Your task to perform on an android device: turn on the 24-hour format for clock Image 0: 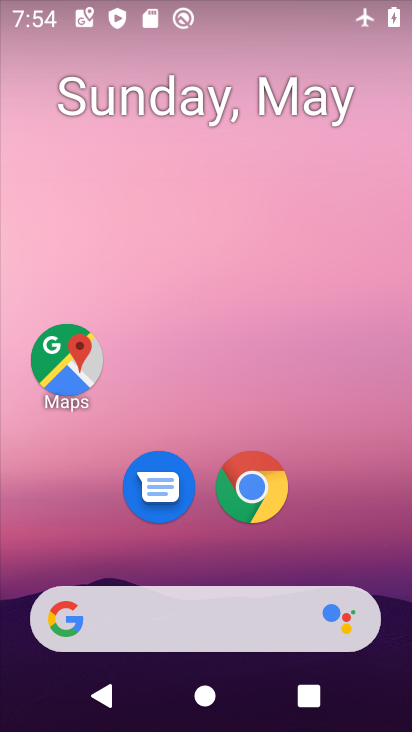
Step 0: drag from (384, 568) to (371, 262)
Your task to perform on an android device: turn on the 24-hour format for clock Image 1: 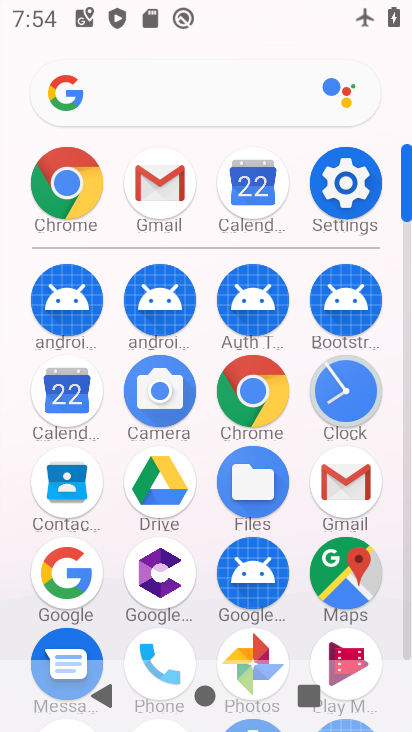
Step 1: click (340, 409)
Your task to perform on an android device: turn on the 24-hour format for clock Image 2: 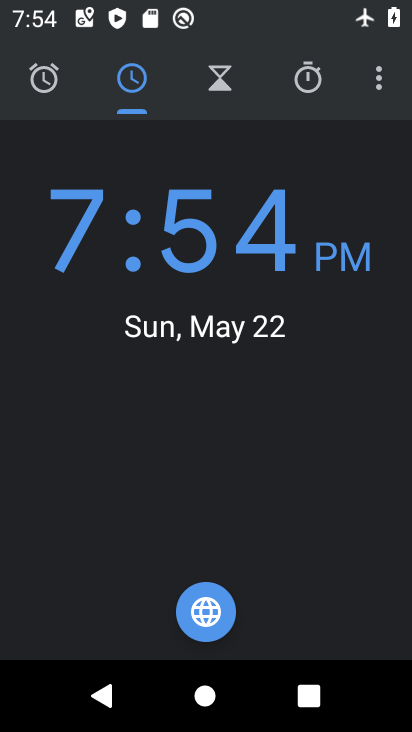
Step 2: click (383, 90)
Your task to perform on an android device: turn on the 24-hour format for clock Image 3: 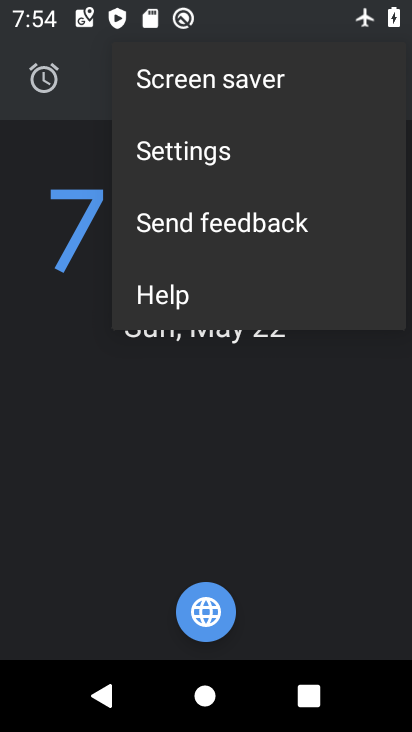
Step 3: click (244, 158)
Your task to perform on an android device: turn on the 24-hour format for clock Image 4: 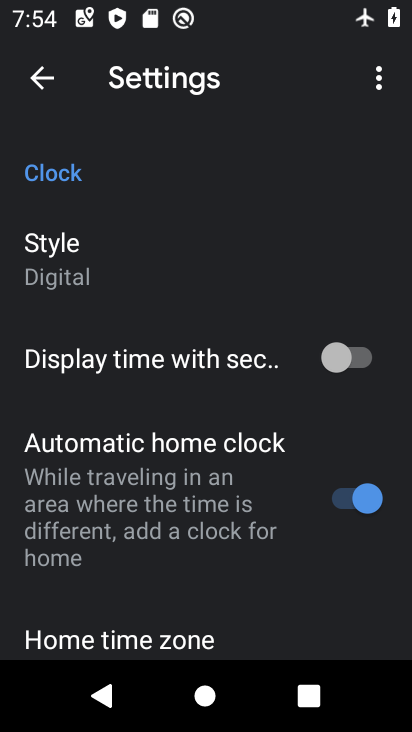
Step 4: drag from (314, 584) to (305, 463)
Your task to perform on an android device: turn on the 24-hour format for clock Image 5: 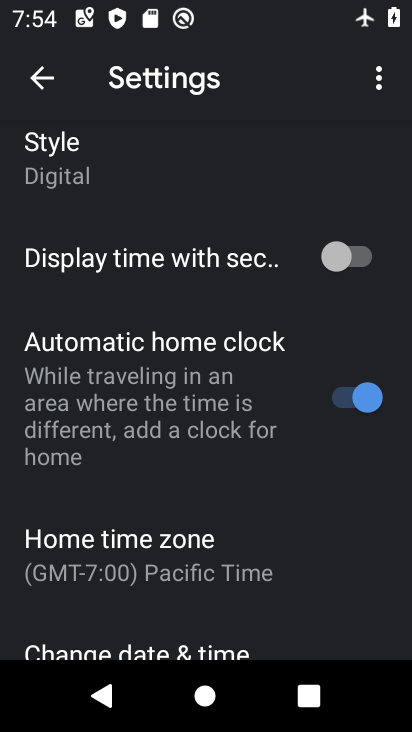
Step 5: drag from (261, 629) to (260, 495)
Your task to perform on an android device: turn on the 24-hour format for clock Image 6: 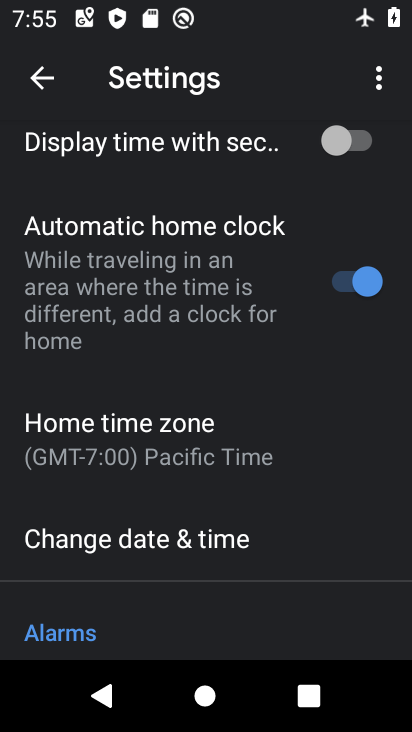
Step 6: drag from (279, 603) to (283, 509)
Your task to perform on an android device: turn on the 24-hour format for clock Image 7: 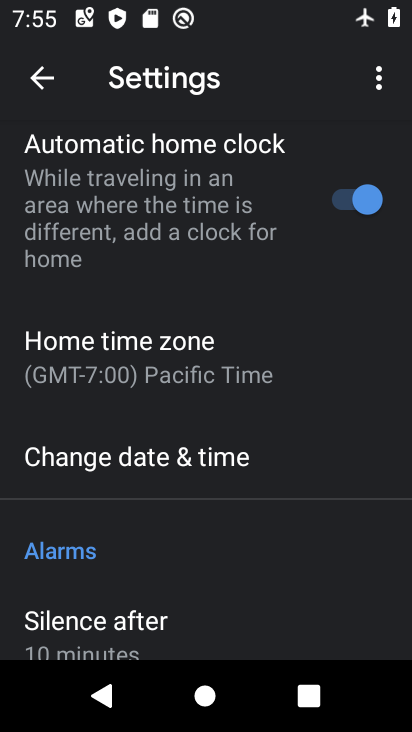
Step 7: drag from (283, 568) to (281, 412)
Your task to perform on an android device: turn on the 24-hour format for clock Image 8: 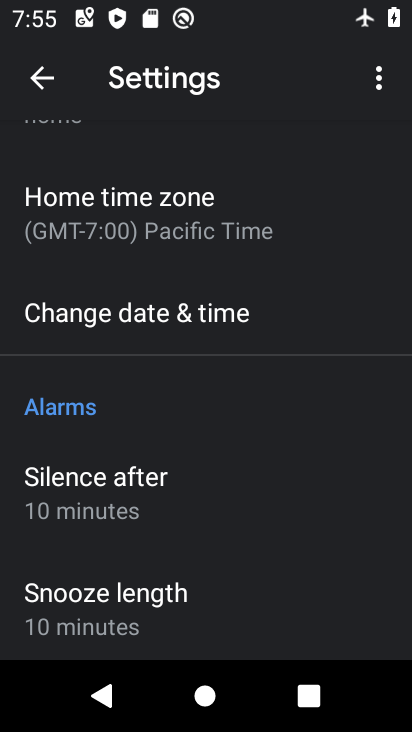
Step 8: click (217, 328)
Your task to perform on an android device: turn on the 24-hour format for clock Image 9: 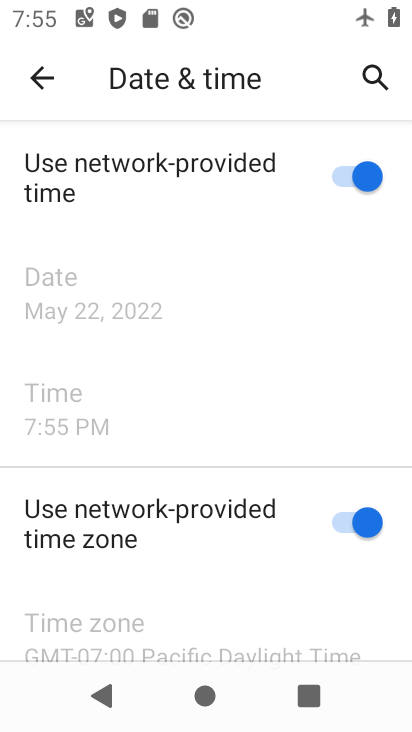
Step 9: drag from (231, 606) to (229, 478)
Your task to perform on an android device: turn on the 24-hour format for clock Image 10: 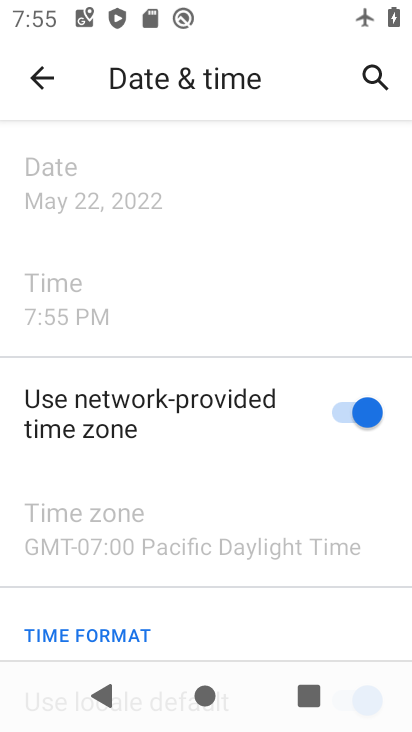
Step 10: drag from (253, 622) to (257, 500)
Your task to perform on an android device: turn on the 24-hour format for clock Image 11: 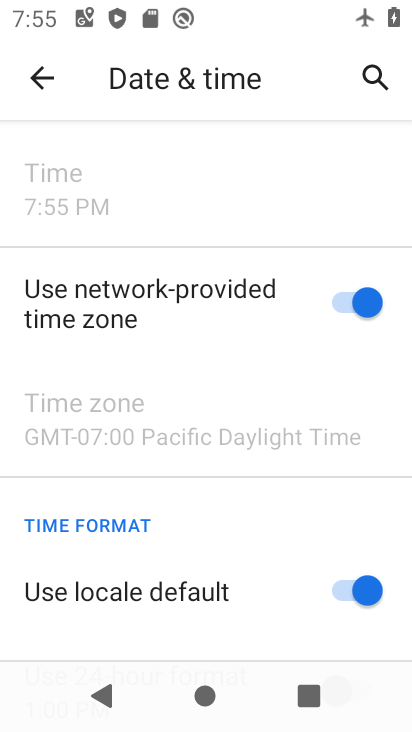
Step 11: drag from (265, 599) to (260, 499)
Your task to perform on an android device: turn on the 24-hour format for clock Image 12: 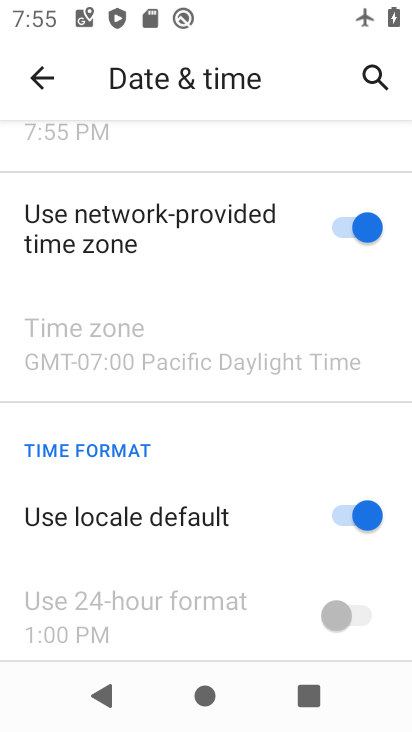
Step 12: drag from (247, 631) to (245, 518)
Your task to perform on an android device: turn on the 24-hour format for clock Image 13: 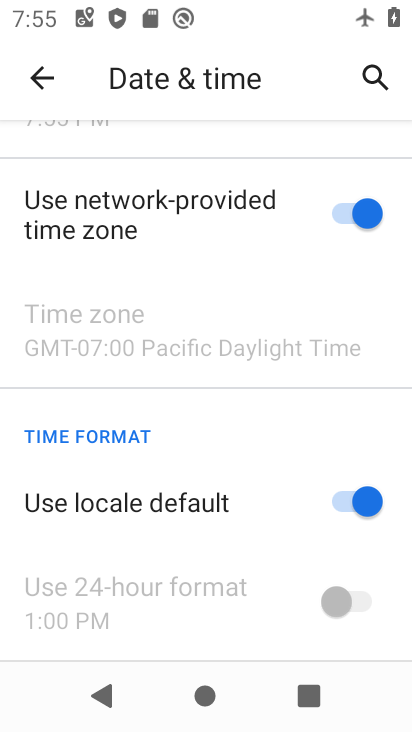
Step 13: click (367, 495)
Your task to perform on an android device: turn on the 24-hour format for clock Image 14: 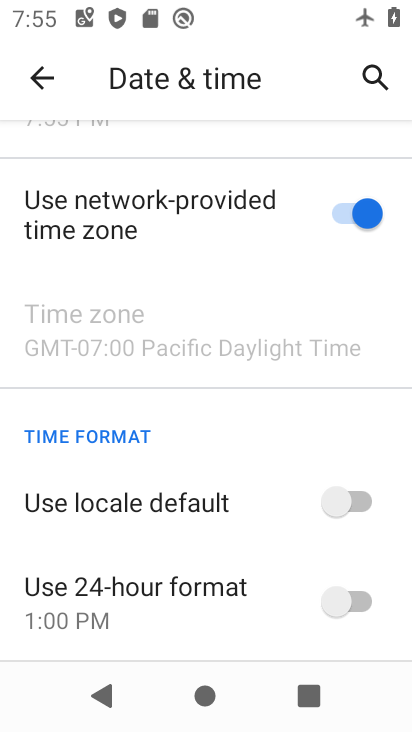
Step 14: click (354, 602)
Your task to perform on an android device: turn on the 24-hour format for clock Image 15: 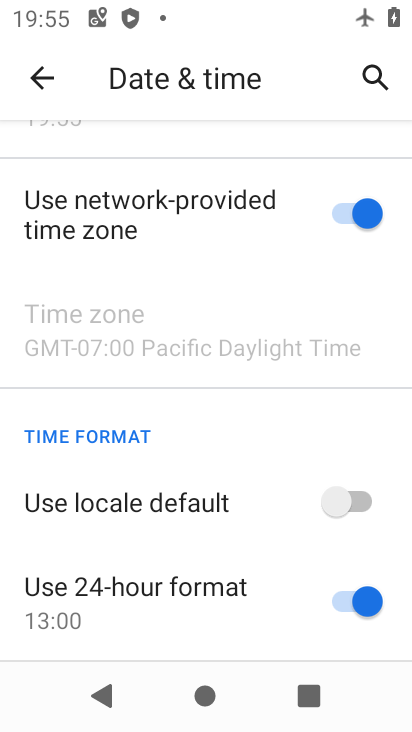
Step 15: task complete